Your task to perform on an android device: View the shopping cart on costco. Add "razer huntsman" to the cart on costco Image 0: 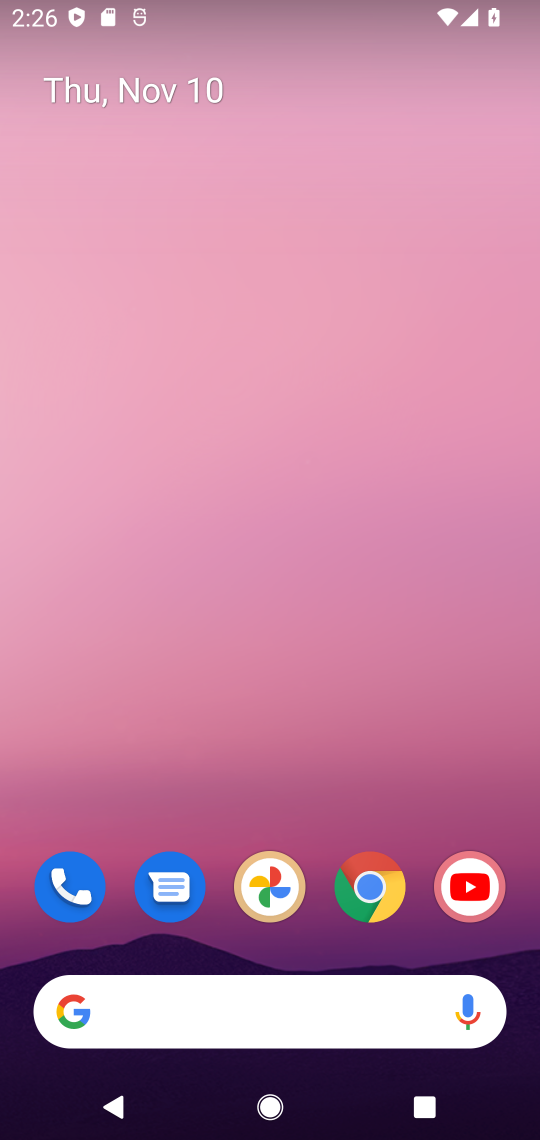
Step 0: drag from (325, 971) to (341, 131)
Your task to perform on an android device: View the shopping cart on costco. Add "razer huntsman" to the cart on costco Image 1: 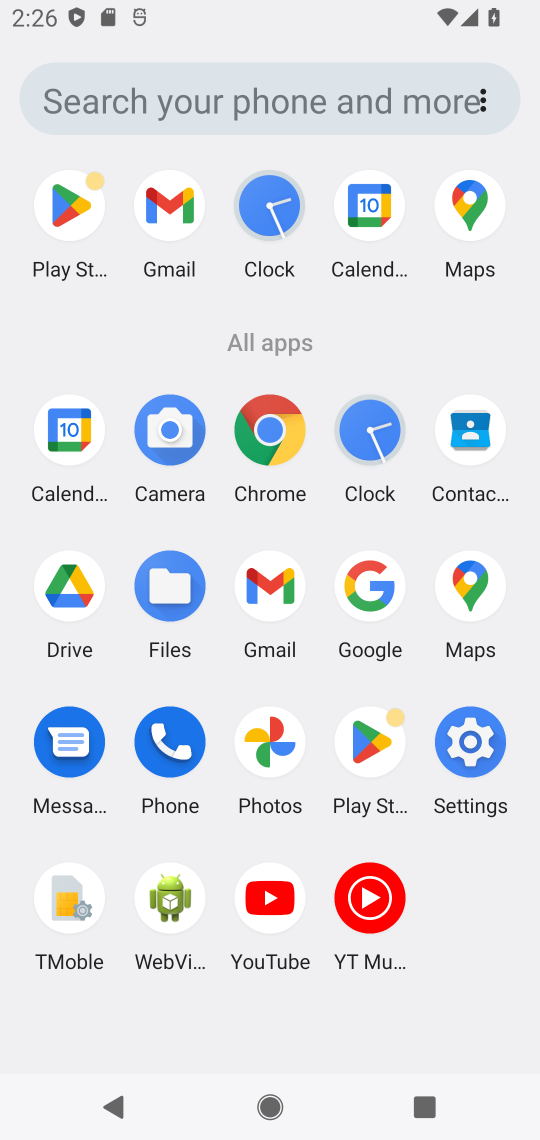
Step 1: click (277, 432)
Your task to perform on an android device: View the shopping cart on costco. Add "razer huntsman" to the cart on costco Image 2: 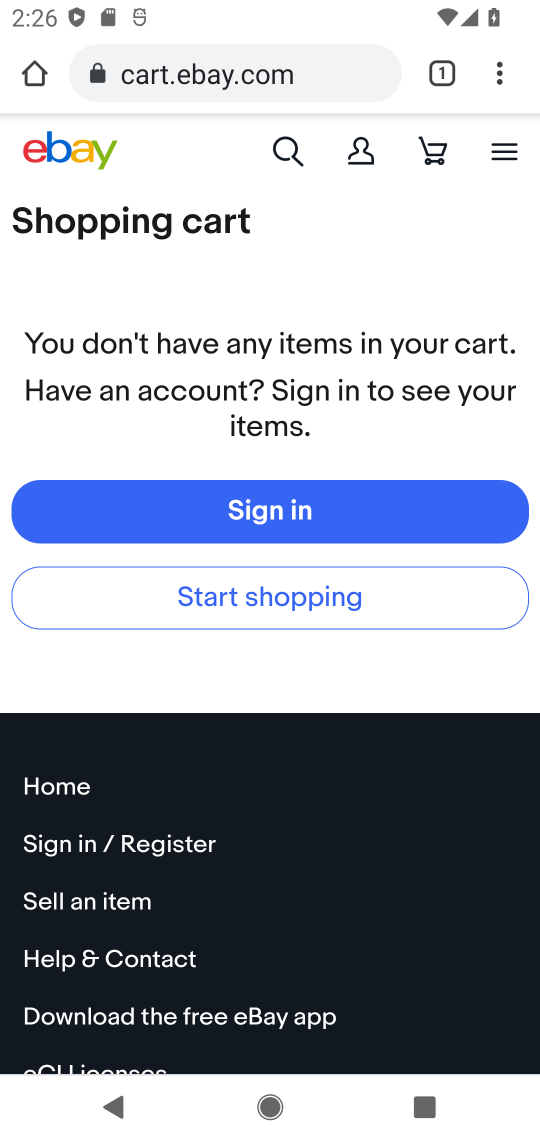
Step 2: click (285, 62)
Your task to perform on an android device: View the shopping cart on costco. Add "razer huntsman" to the cart on costco Image 3: 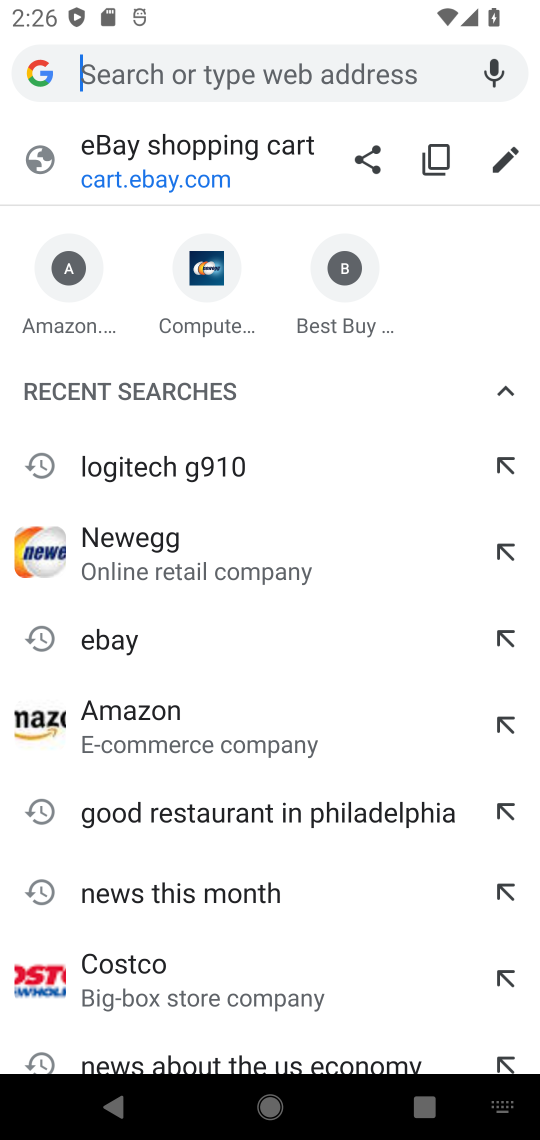
Step 3: type "costco.com"
Your task to perform on an android device: View the shopping cart on costco. Add "razer huntsman" to the cart on costco Image 4: 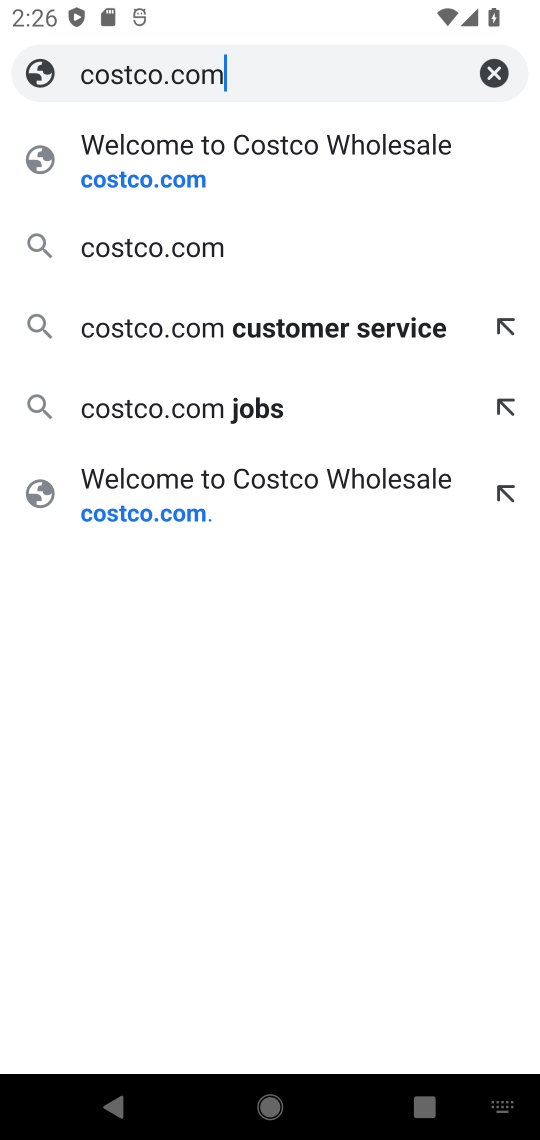
Step 4: press enter
Your task to perform on an android device: View the shopping cart on costco. Add "razer huntsman" to the cart on costco Image 5: 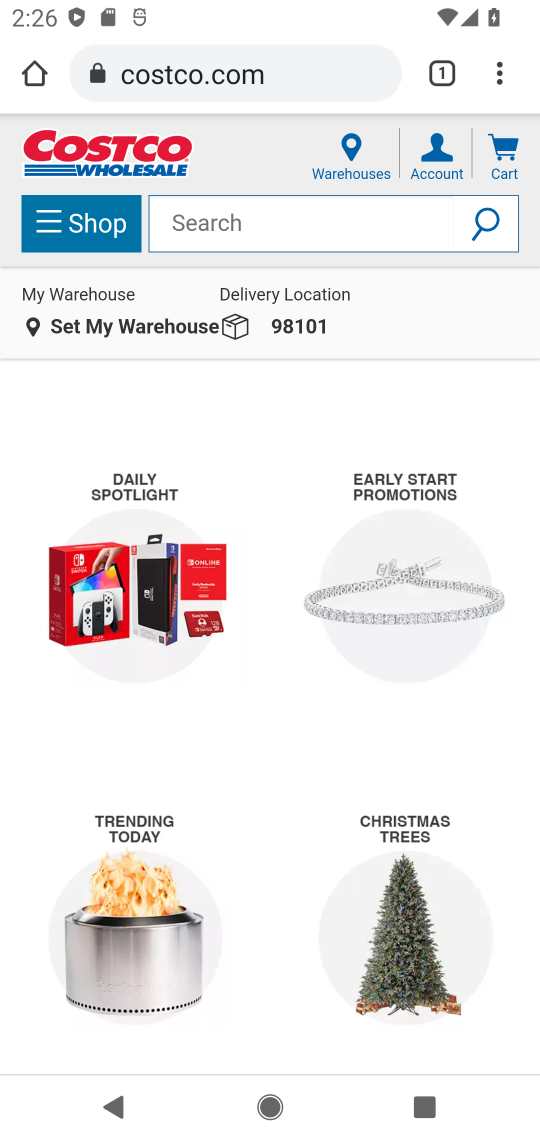
Step 5: click (501, 151)
Your task to perform on an android device: View the shopping cart on costco. Add "razer huntsman" to the cart on costco Image 6: 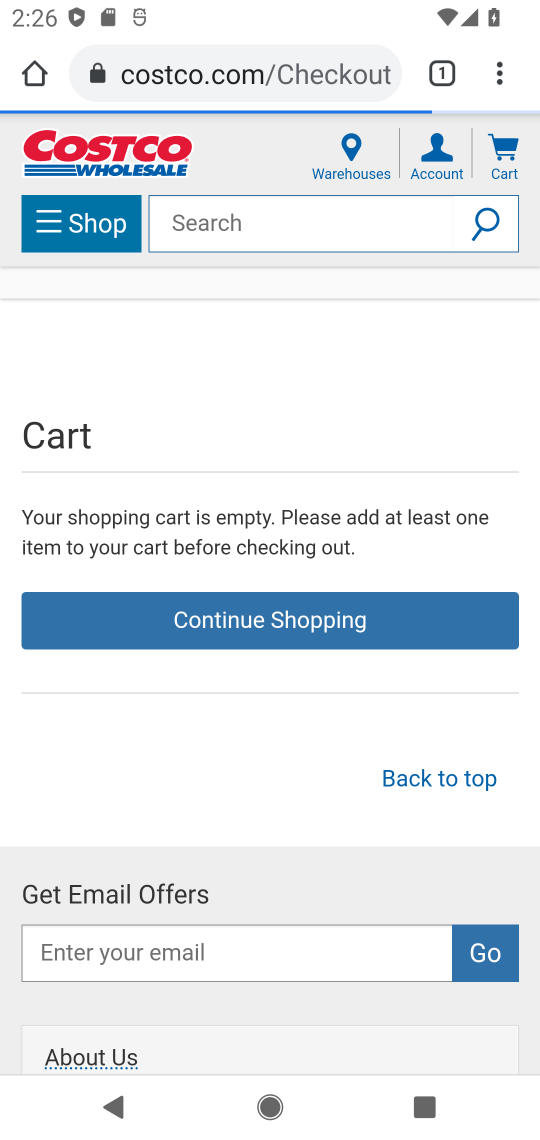
Step 6: click (291, 214)
Your task to perform on an android device: View the shopping cart on costco. Add "razer huntsman" to the cart on costco Image 7: 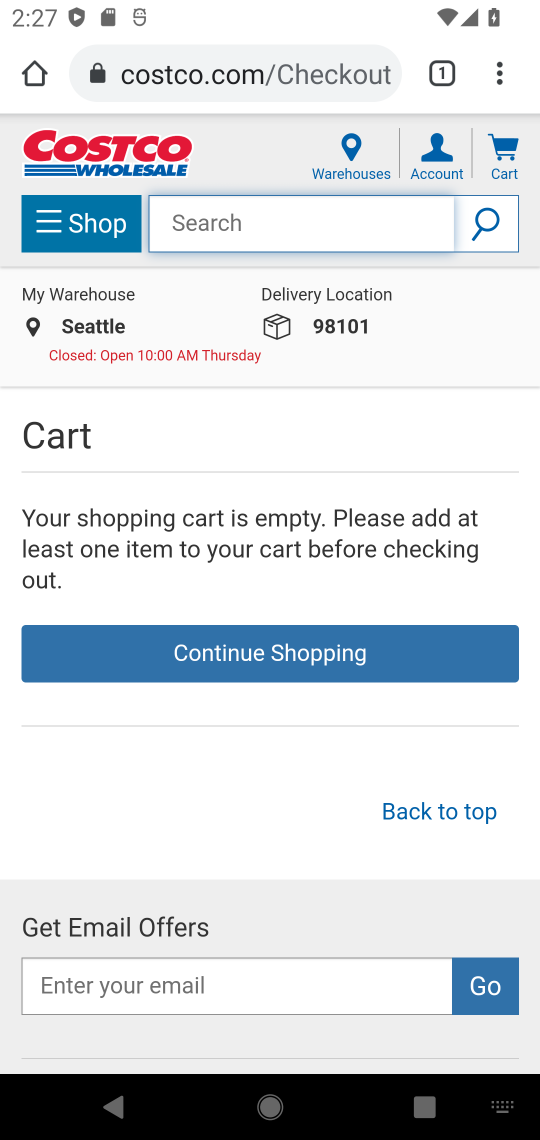
Step 7: type "razer huntsman"
Your task to perform on an android device: View the shopping cart on costco. Add "razer huntsman" to the cart on costco Image 8: 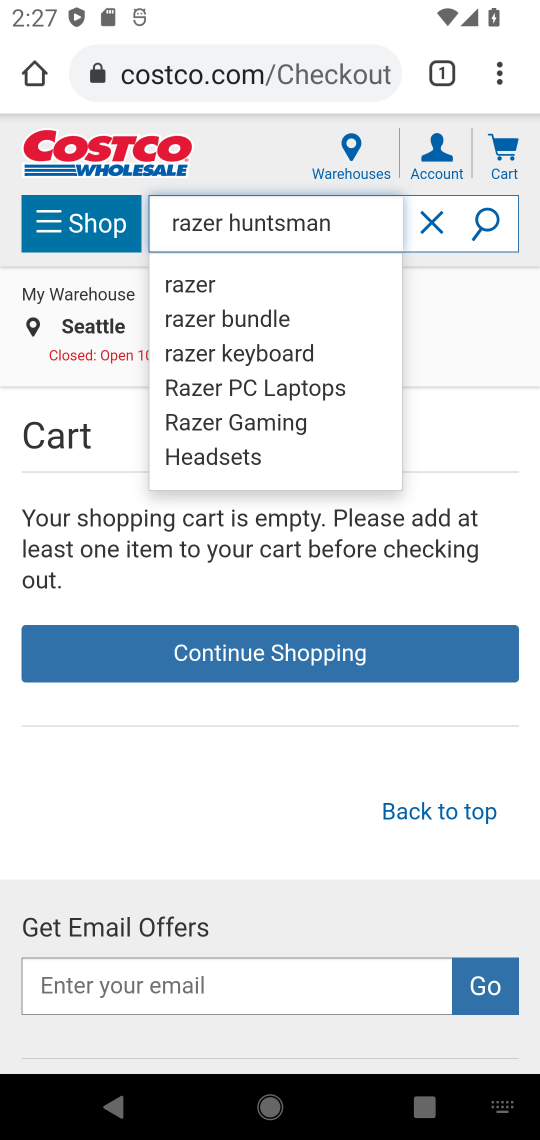
Step 8: press enter
Your task to perform on an android device: View the shopping cart on costco. Add "razer huntsman" to the cart on costco Image 9: 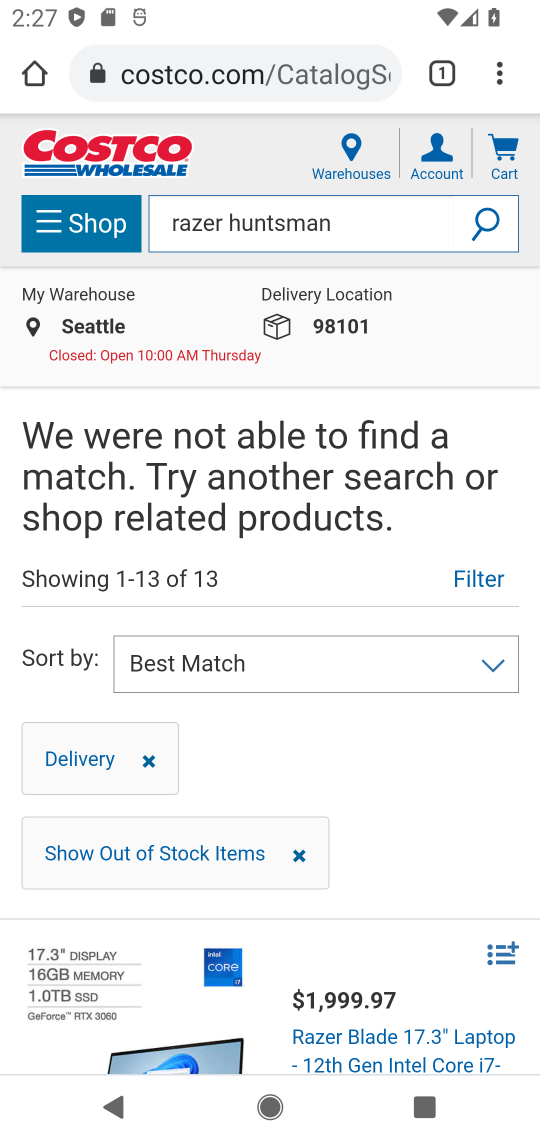
Step 9: task complete